Your task to perform on an android device: Search for Italian restaurants on Maps Image 0: 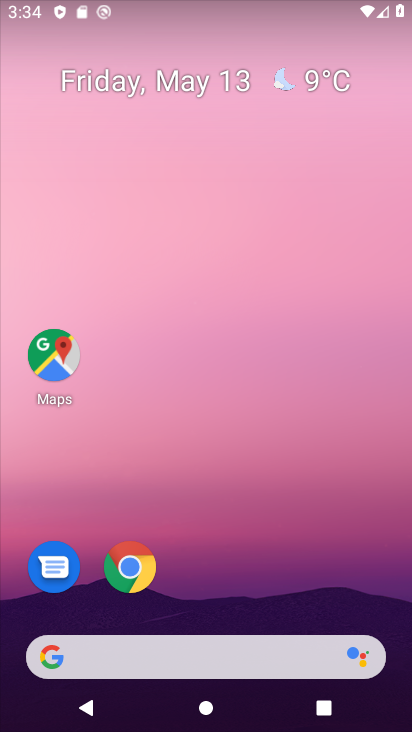
Step 0: click (49, 356)
Your task to perform on an android device: Search for Italian restaurants on Maps Image 1: 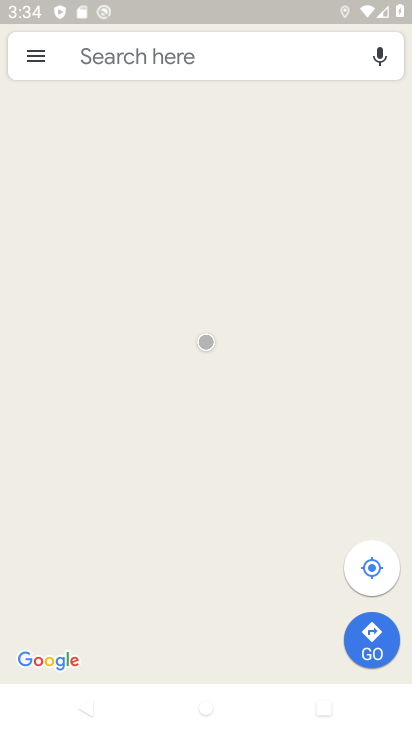
Step 1: click (227, 62)
Your task to perform on an android device: Search for Italian restaurants on Maps Image 2: 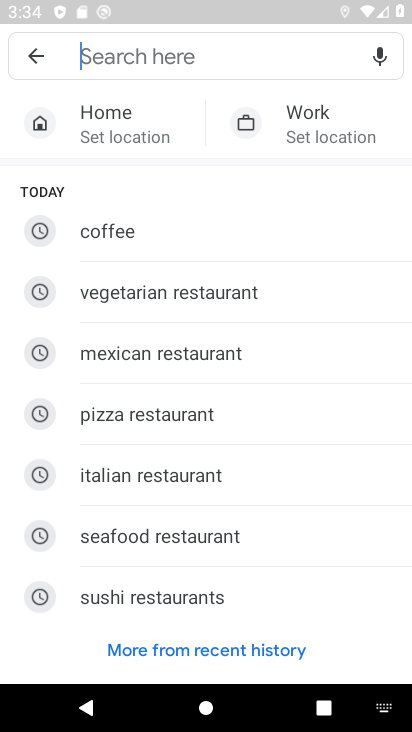
Step 2: click (165, 481)
Your task to perform on an android device: Search for Italian restaurants on Maps Image 3: 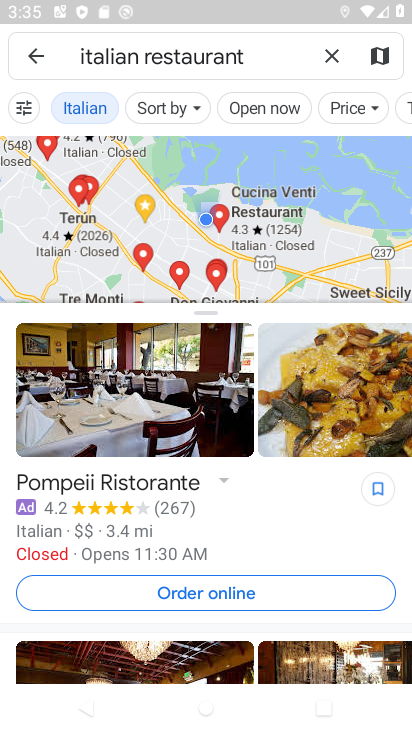
Step 3: task complete